Your task to perform on an android device: Open calendar and show me the first week of next month Image 0: 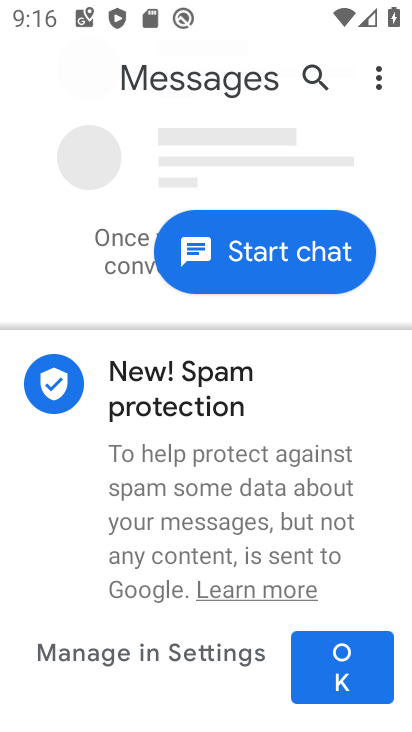
Step 0: press home button
Your task to perform on an android device: Open calendar and show me the first week of next month Image 1: 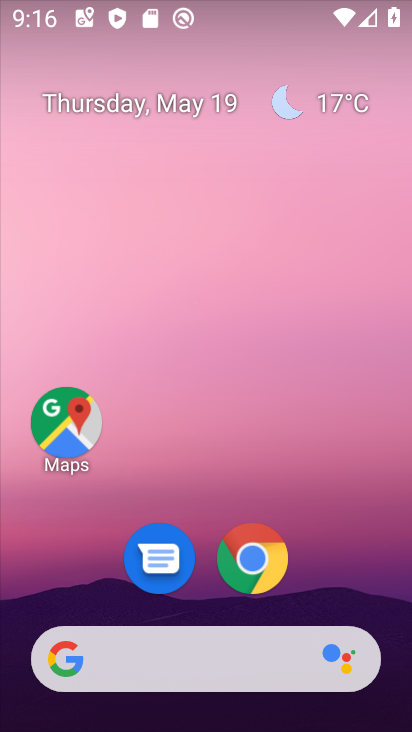
Step 1: drag from (244, 579) to (234, 117)
Your task to perform on an android device: Open calendar and show me the first week of next month Image 2: 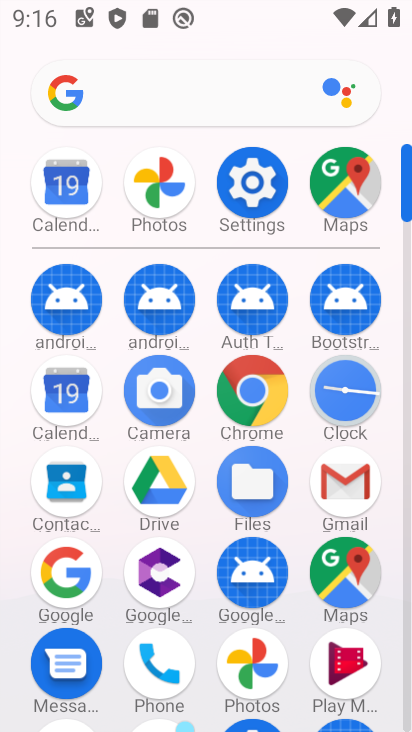
Step 2: click (60, 398)
Your task to perform on an android device: Open calendar and show me the first week of next month Image 3: 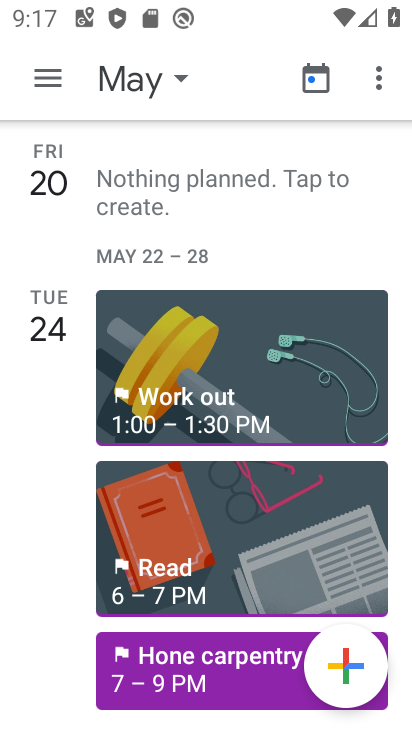
Step 3: click (142, 89)
Your task to perform on an android device: Open calendar and show me the first week of next month Image 4: 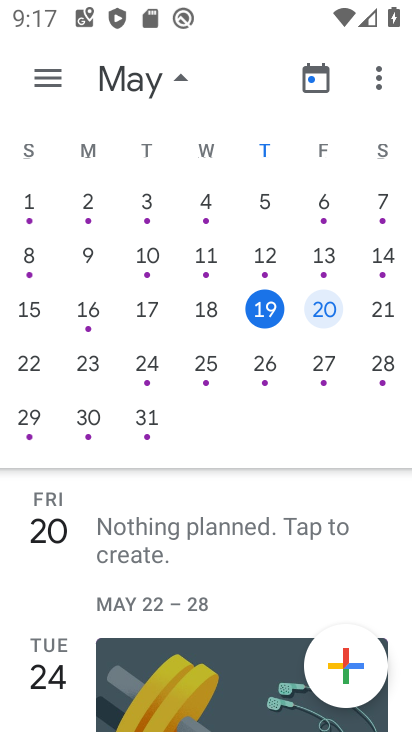
Step 4: drag from (392, 316) to (86, 271)
Your task to perform on an android device: Open calendar and show me the first week of next month Image 5: 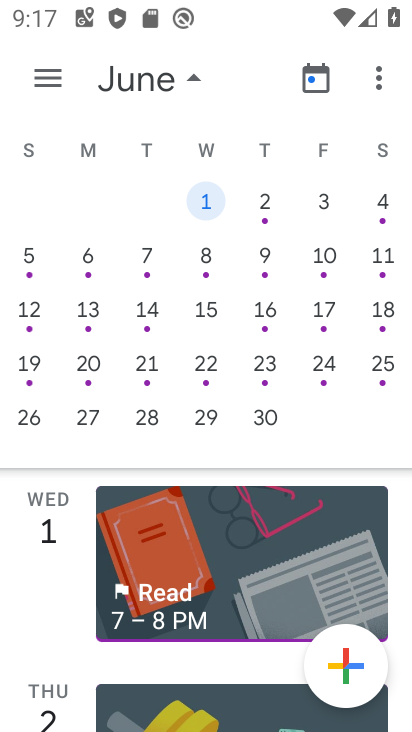
Step 5: click (84, 252)
Your task to perform on an android device: Open calendar and show me the first week of next month Image 6: 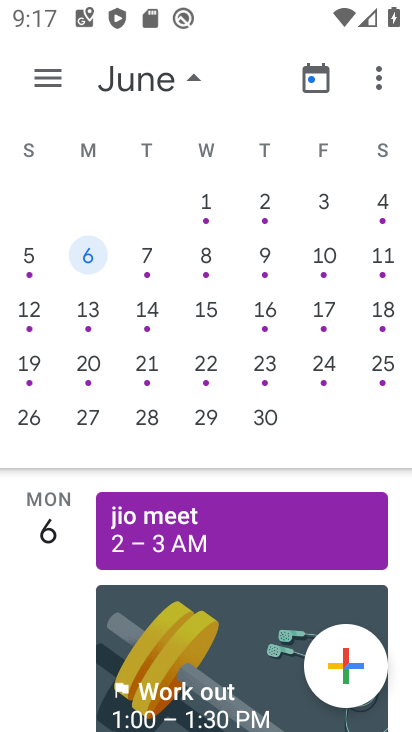
Step 6: click (46, 68)
Your task to perform on an android device: Open calendar and show me the first week of next month Image 7: 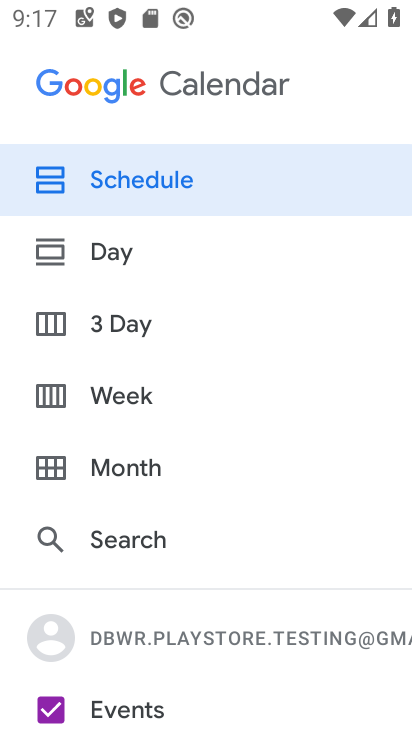
Step 7: click (122, 390)
Your task to perform on an android device: Open calendar and show me the first week of next month Image 8: 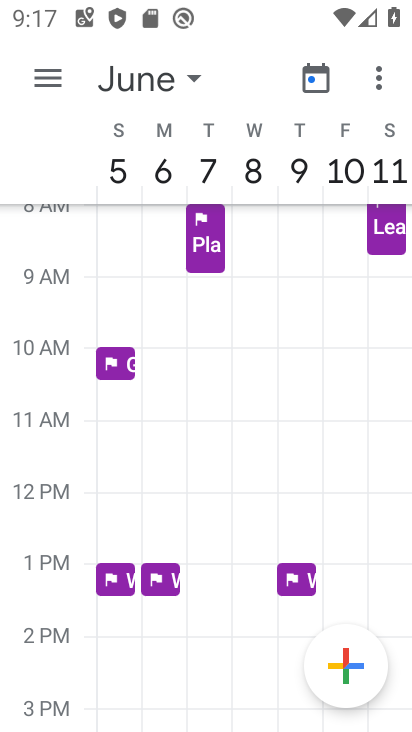
Step 8: task complete